Your task to perform on an android device: toggle improve location accuracy Image 0: 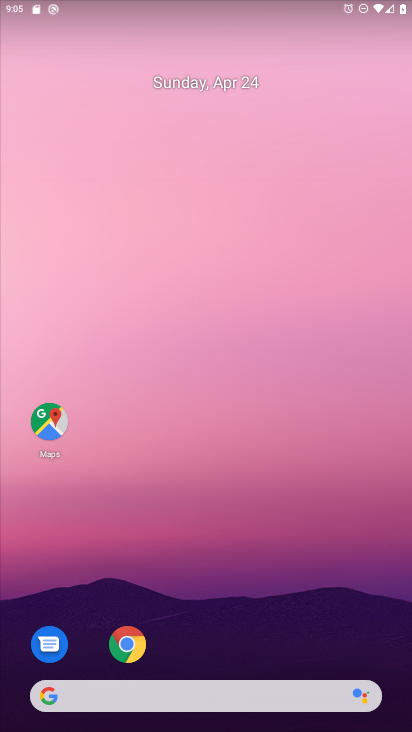
Step 0: drag from (201, 676) to (131, 8)
Your task to perform on an android device: toggle improve location accuracy Image 1: 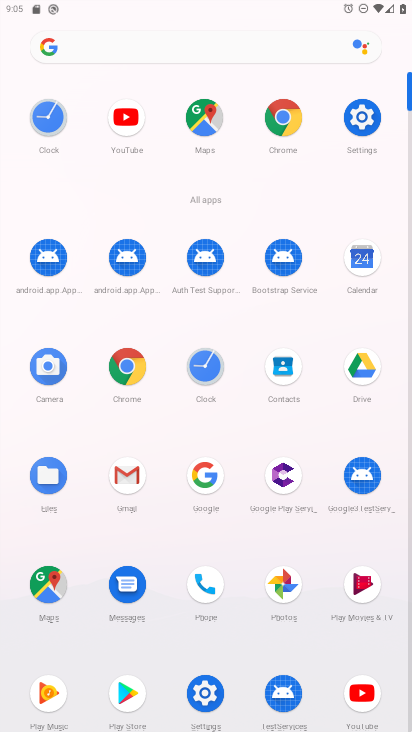
Step 1: click (375, 124)
Your task to perform on an android device: toggle improve location accuracy Image 2: 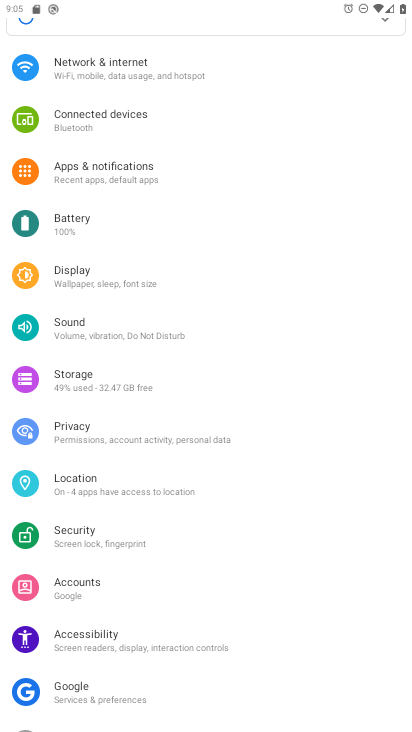
Step 2: click (61, 479)
Your task to perform on an android device: toggle improve location accuracy Image 3: 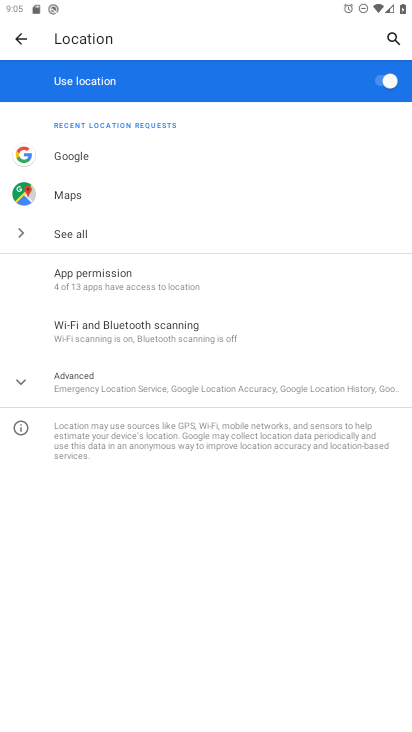
Step 3: click (76, 362)
Your task to perform on an android device: toggle improve location accuracy Image 4: 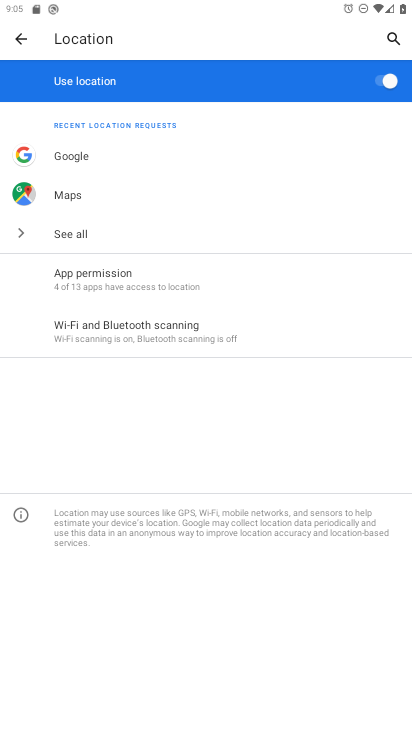
Step 4: drag from (78, 360) to (87, 206)
Your task to perform on an android device: toggle improve location accuracy Image 5: 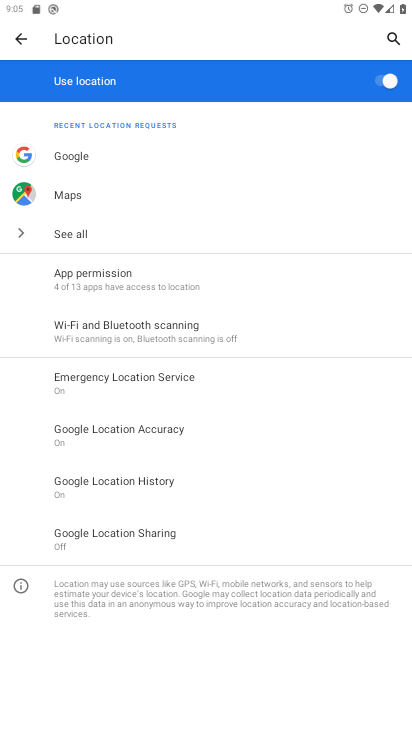
Step 5: click (64, 426)
Your task to perform on an android device: toggle improve location accuracy Image 6: 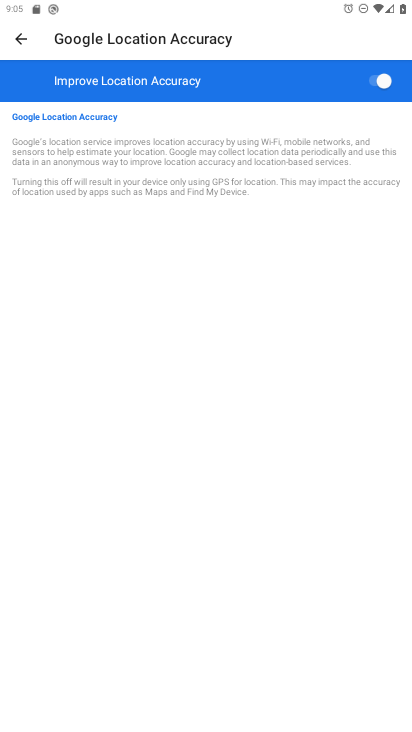
Step 6: click (379, 75)
Your task to perform on an android device: toggle improve location accuracy Image 7: 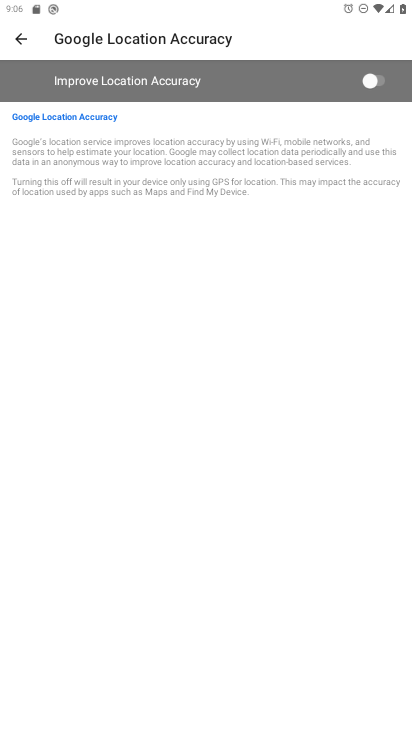
Step 7: task complete